Your task to perform on an android device: turn on priority inbox in the gmail app Image 0: 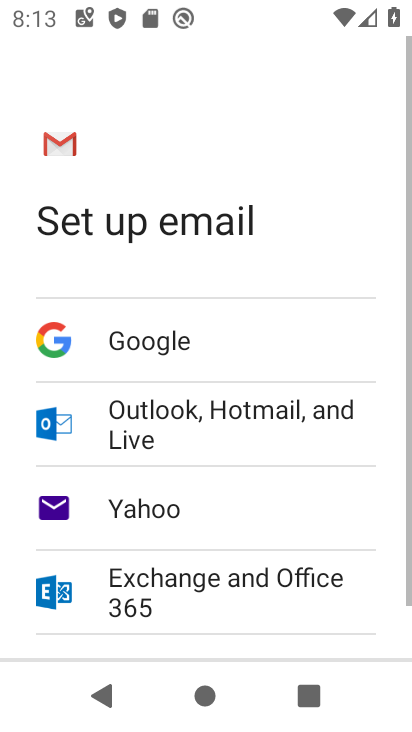
Step 0: press home button
Your task to perform on an android device: turn on priority inbox in the gmail app Image 1: 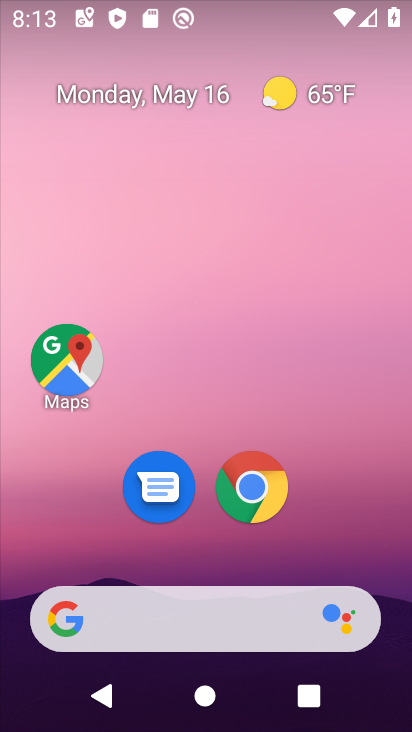
Step 1: drag from (373, 541) to (351, 108)
Your task to perform on an android device: turn on priority inbox in the gmail app Image 2: 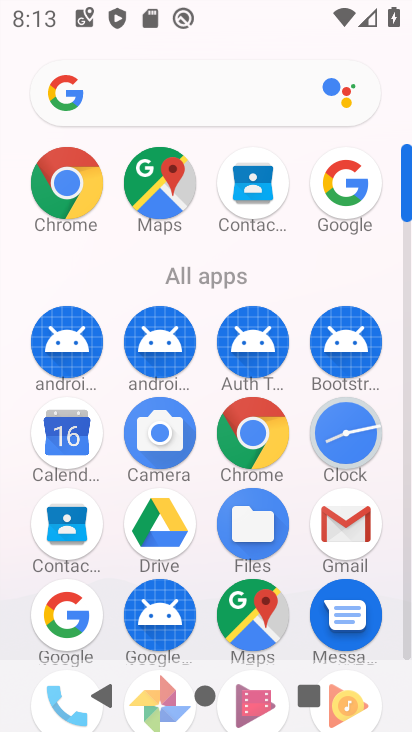
Step 2: click (358, 527)
Your task to perform on an android device: turn on priority inbox in the gmail app Image 3: 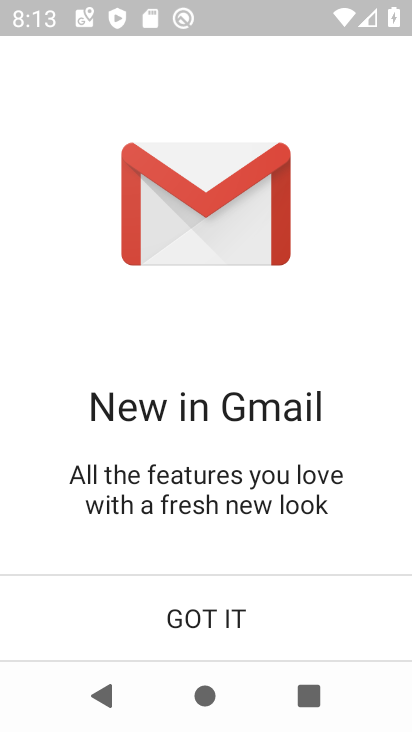
Step 3: click (220, 615)
Your task to perform on an android device: turn on priority inbox in the gmail app Image 4: 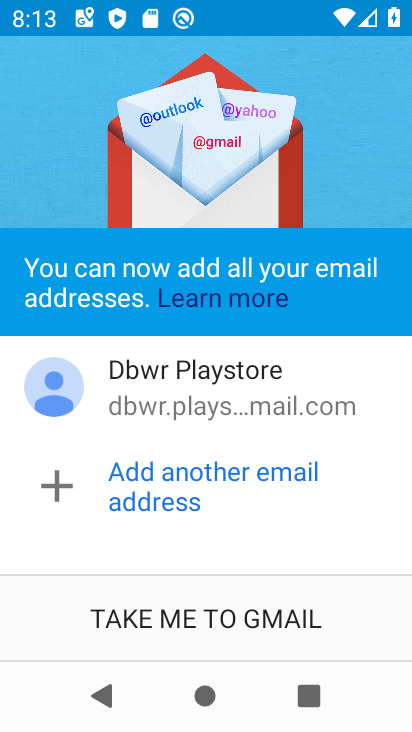
Step 4: click (220, 615)
Your task to perform on an android device: turn on priority inbox in the gmail app Image 5: 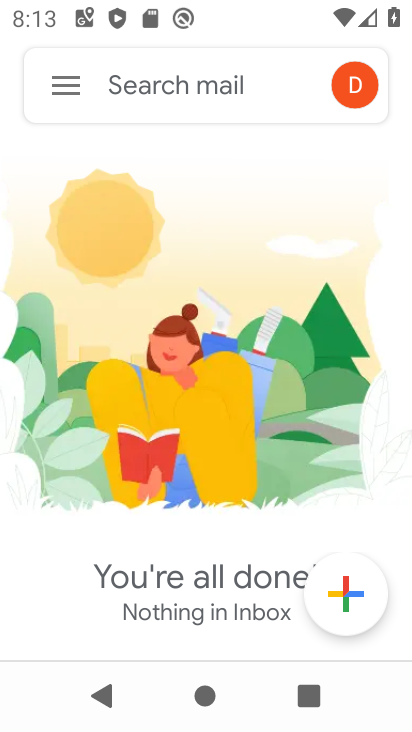
Step 5: click (65, 97)
Your task to perform on an android device: turn on priority inbox in the gmail app Image 6: 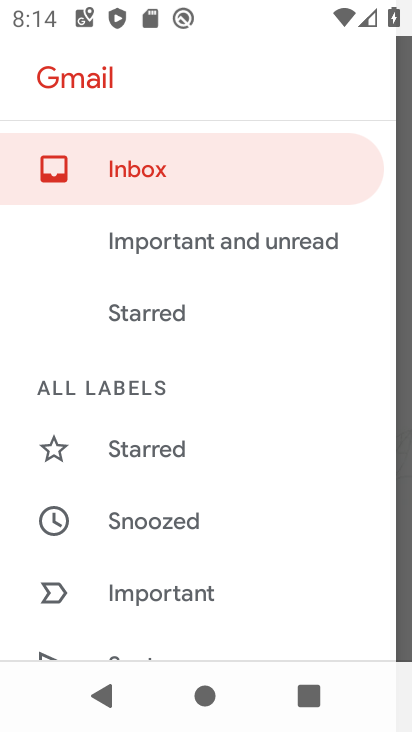
Step 6: drag from (308, 575) to (296, 398)
Your task to perform on an android device: turn on priority inbox in the gmail app Image 7: 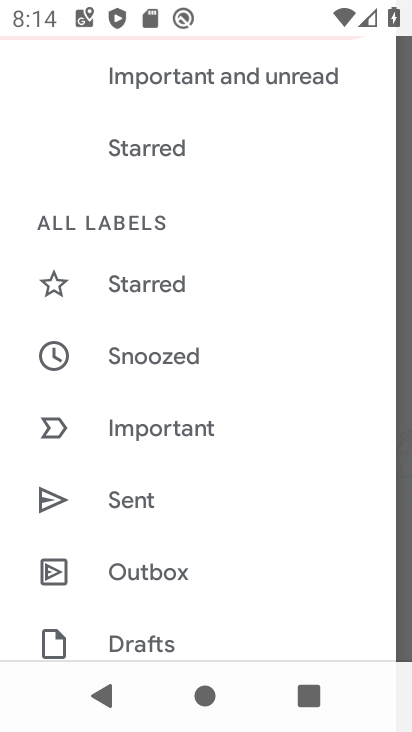
Step 7: drag from (299, 564) to (282, 407)
Your task to perform on an android device: turn on priority inbox in the gmail app Image 8: 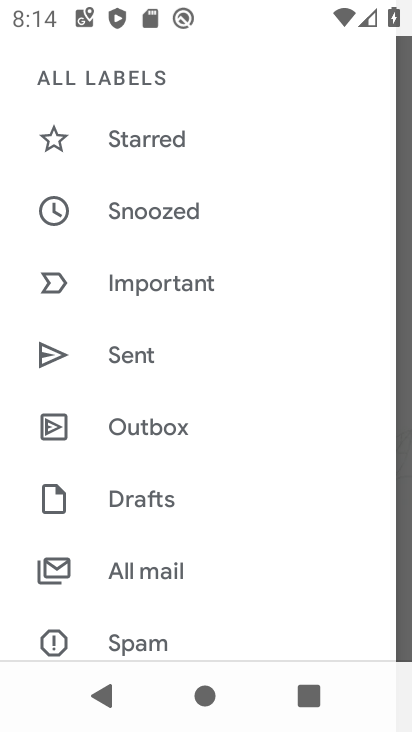
Step 8: drag from (280, 587) to (278, 432)
Your task to perform on an android device: turn on priority inbox in the gmail app Image 9: 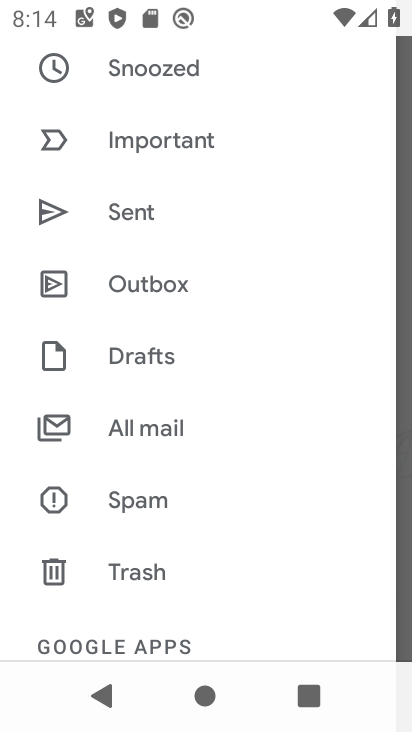
Step 9: drag from (275, 611) to (283, 445)
Your task to perform on an android device: turn on priority inbox in the gmail app Image 10: 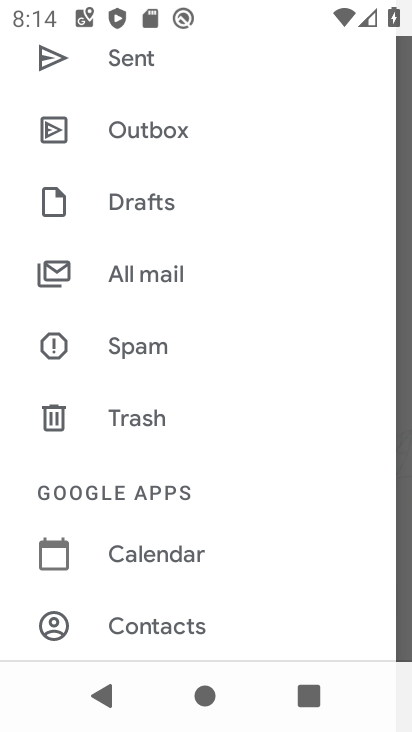
Step 10: drag from (281, 609) to (290, 455)
Your task to perform on an android device: turn on priority inbox in the gmail app Image 11: 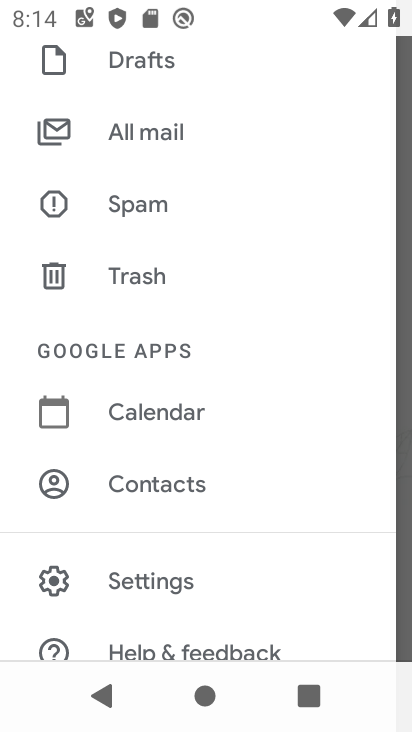
Step 11: drag from (282, 598) to (286, 470)
Your task to perform on an android device: turn on priority inbox in the gmail app Image 12: 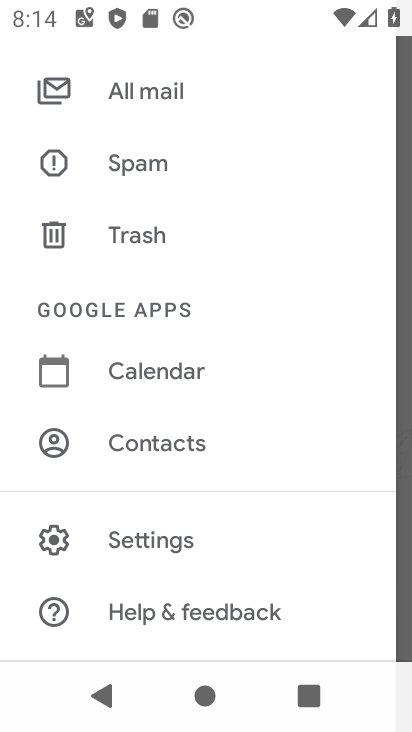
Step 12: click (169, 546)
Your task to perform on an android device: turn on priority inbox in the gmail app Image 13: 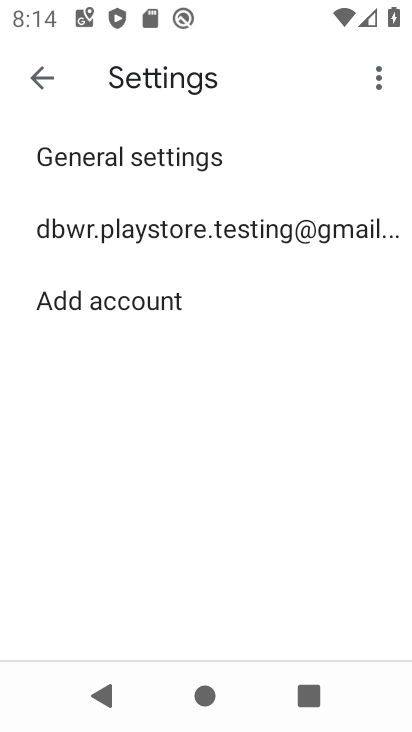
Step 13: click (251, 239)
Your task to perform on an android device: turn on priority inbox in the gmail app Image 14: 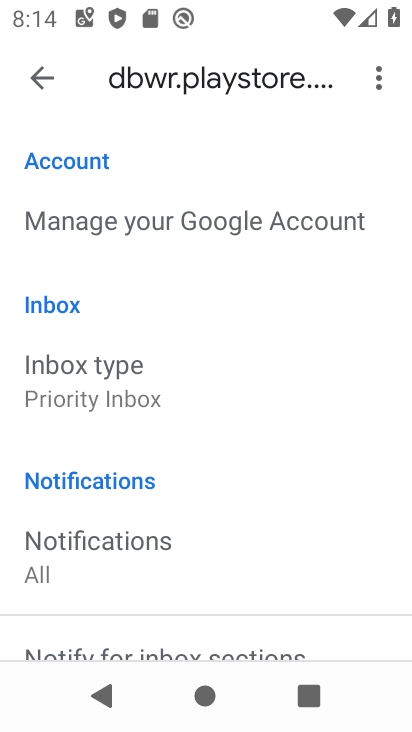
Step 14: click (122, 393)
Your task to perform on an android device: turn on priority inbox in the gmail app Image 15: 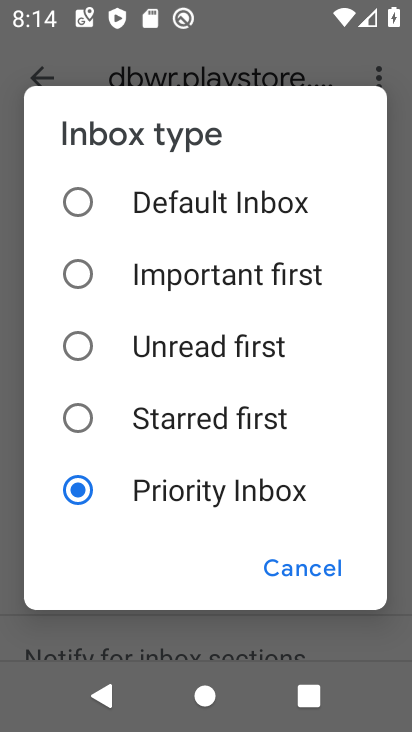
Step 15: task complete